Your task to perform on an android device: empty trash in the gmail app Image 0: 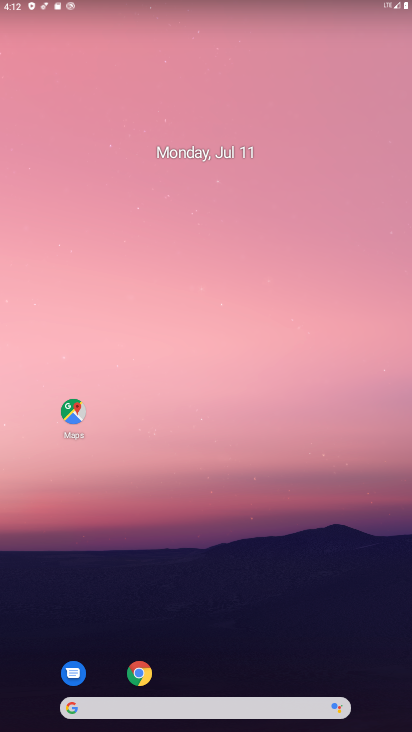
Step 0: drag from (370, 694) to (144, 148)
Your task to perform on an android device: empty trash in the gmail app Image 1: 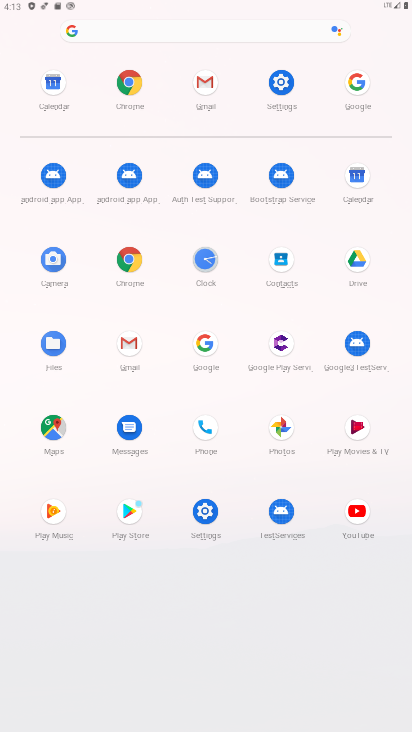
Step 1: click (129, 350)
Your task to perform on an android device: empty trash in the gmail app Image 2: 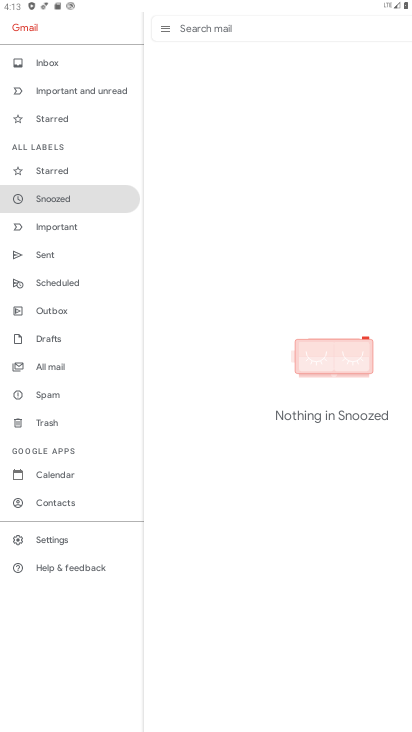
Step 2: click (52, 425)
Your task to perform on an android device: empty trash in the gmail app Image 3: 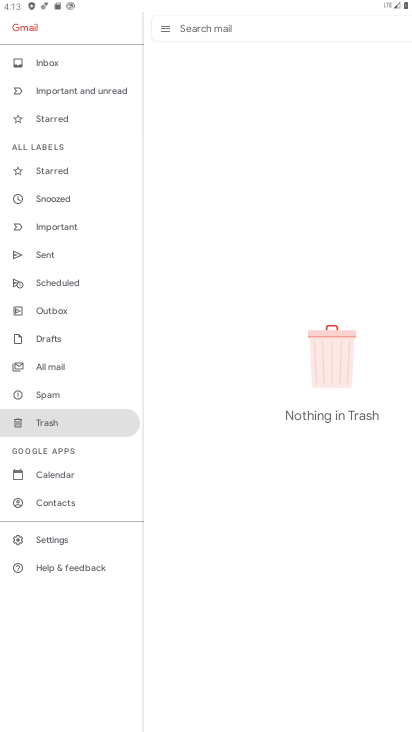
Step 3: task complete